Your task to perform on an android device: turn on data saver in the chrome app Image 0: 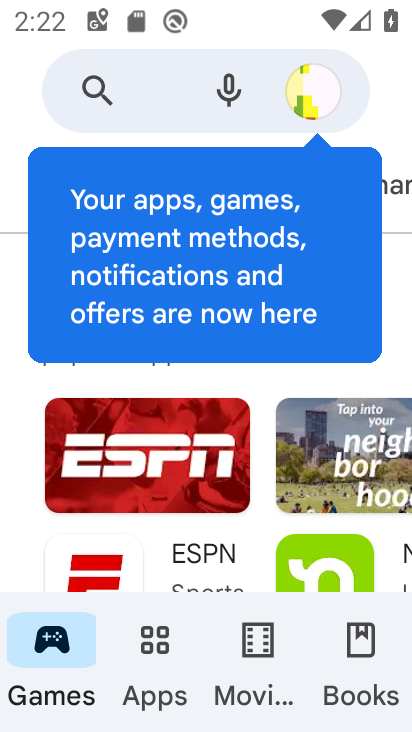
Step 0: press home button
Your task to perform on an android device: turn on data saver in the chrome app Image 1: 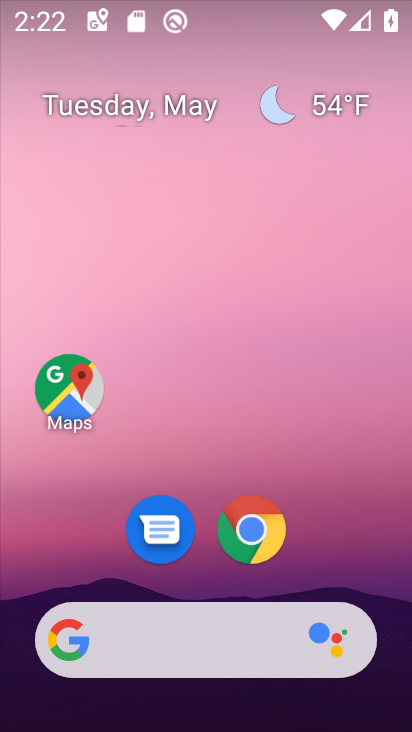
Step 1: drag from (379, 536) to (317, 245)
Your task to perform on an android device: turn on data saver in the chrome app Image 2: 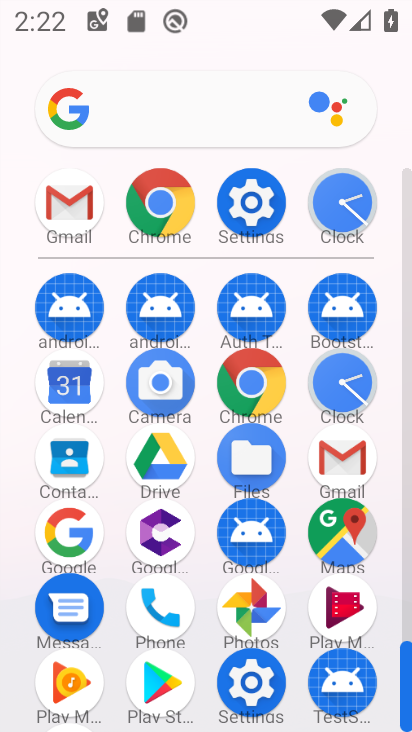
Step 2: click (244, 370)
Your task to perform on an android device: turn on data saver in the chrome app Image 3: 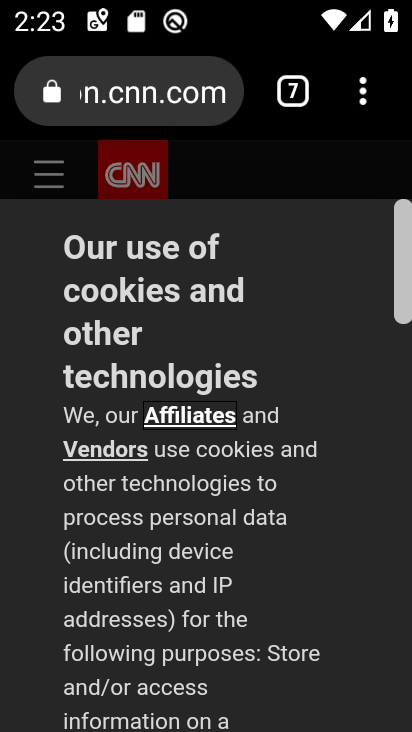
Step 3: click (363, 95)
Your task to perform on an android device: turn on data saver in the chrome app Image 4: 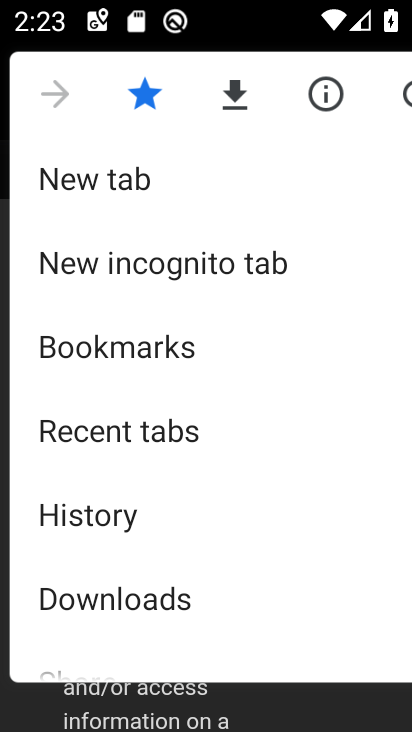
Step 4: drag from (184, 563) to (187, 359)
Your task to perform on an android device: turn on data saver in the chrome app Image 5: 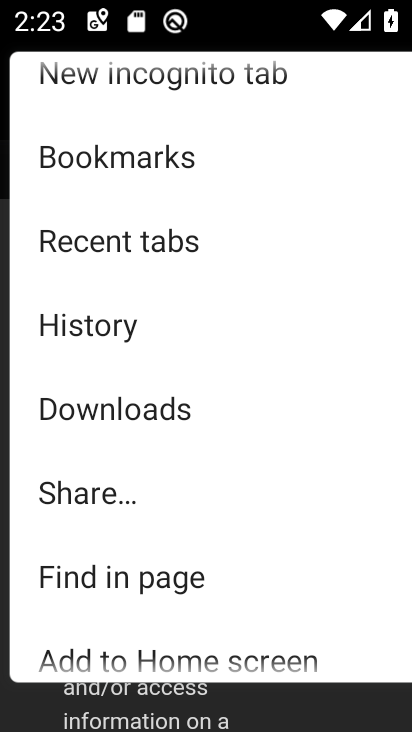
Step 5: drag from (212, 547) to (230, 294)
Your task to perform on an android device: turn on data saver in the chrome app Image 6: 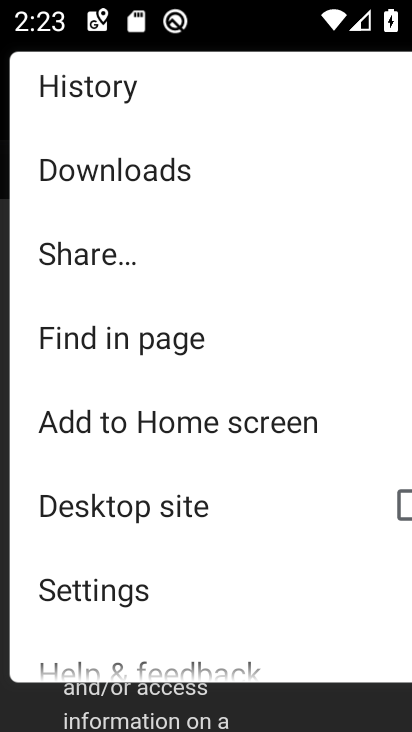
Step 6: click (159, 605)
Your task to perform on an android device: turn on data saver in the chrome app Image 7: 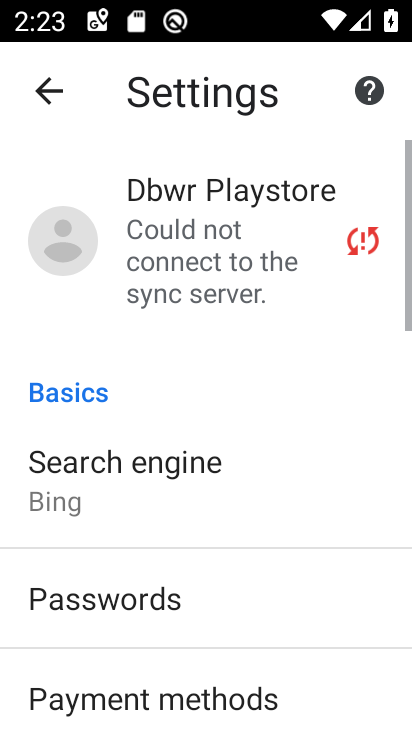
Step 7: drag from (174, 580) to (223, 213)
Your task to perform on an android device: turn on data saver in the chrome app Image 8: 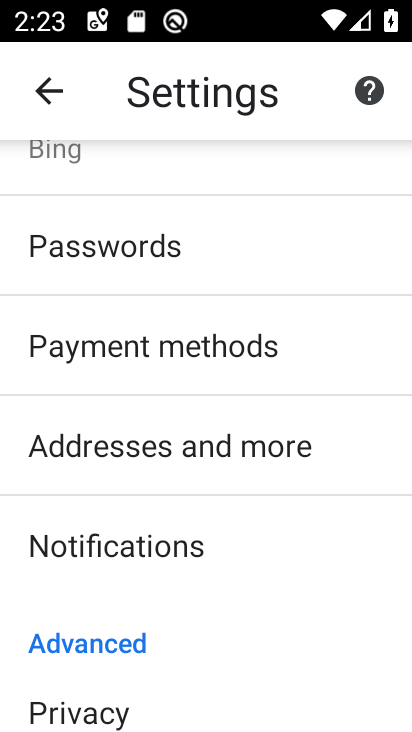
Step 8: drag from (247, 497) to (222, 177)
Your task to perform on an android device: turn on data saver in the chrome app Image 9: 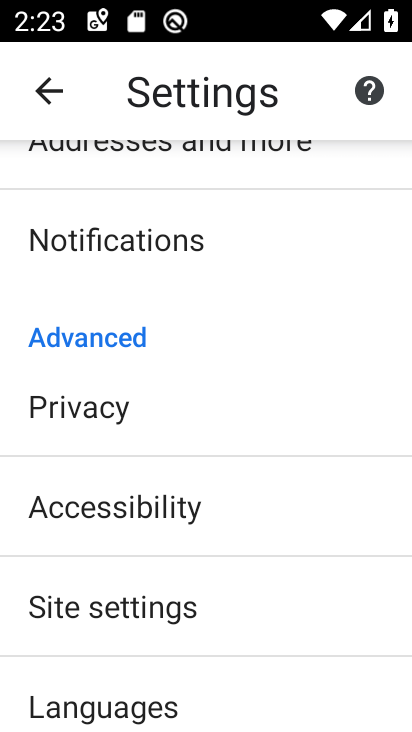
Step 9: drag from (201, 577) to (177, 319)
Your task to perform on an android device: turn on data saver in the chrome app Image 10: 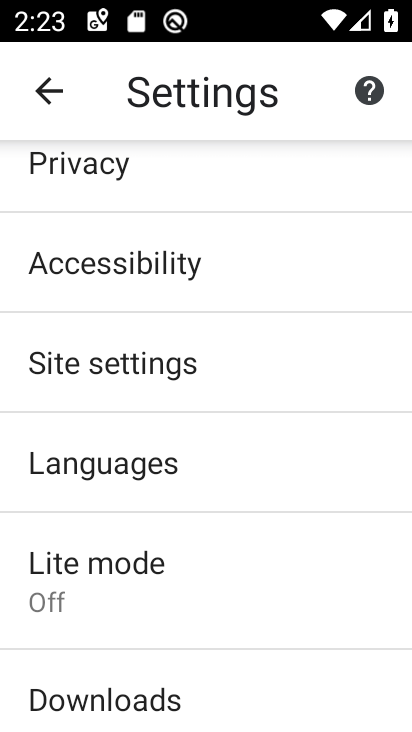
Step 10: click (171, 587)
Your task to perform on an android device: turn on data saver in the chrome app Image 11: 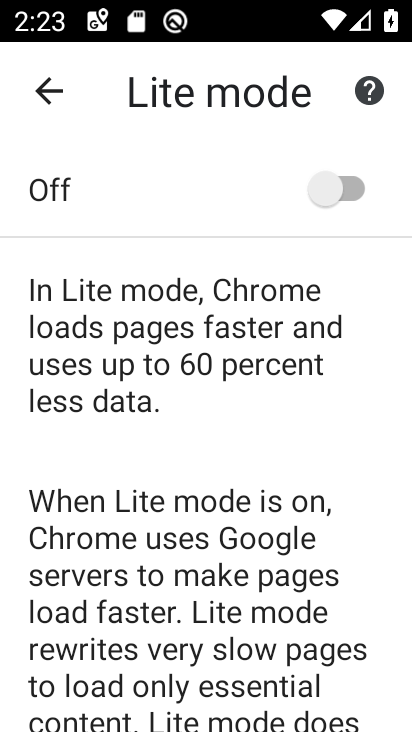
Step 11: task complete